Your task to perform on an android device: turn off picture-in-picture Image 0: 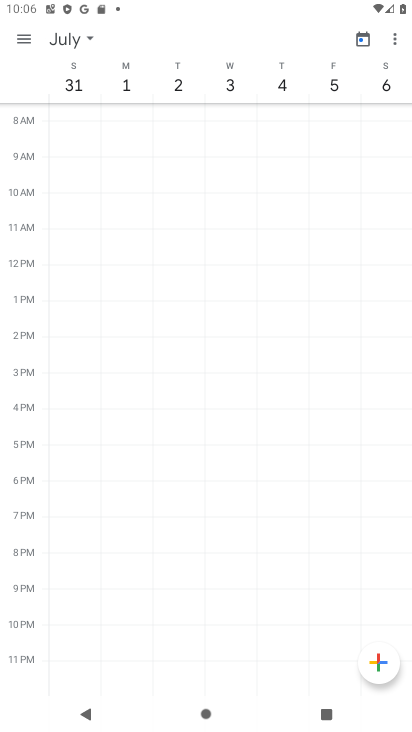
Step 0: press home button
Your task to perform on an android device: turn off picture-in-picture Image 1: 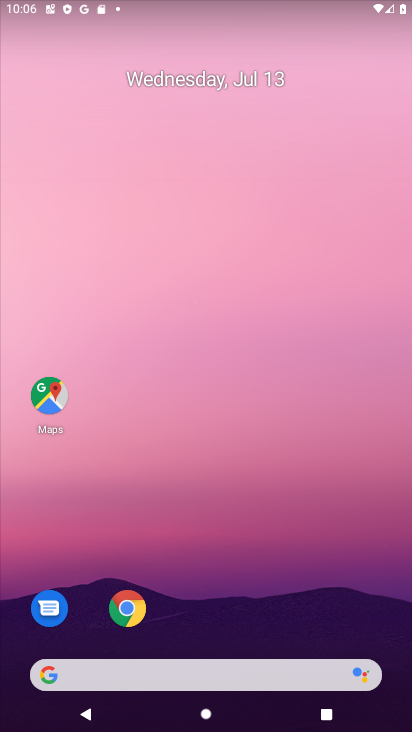
Step 1: click (129, 610)
Your task to perform on an android device: turn off picture-in-picture Image 2: 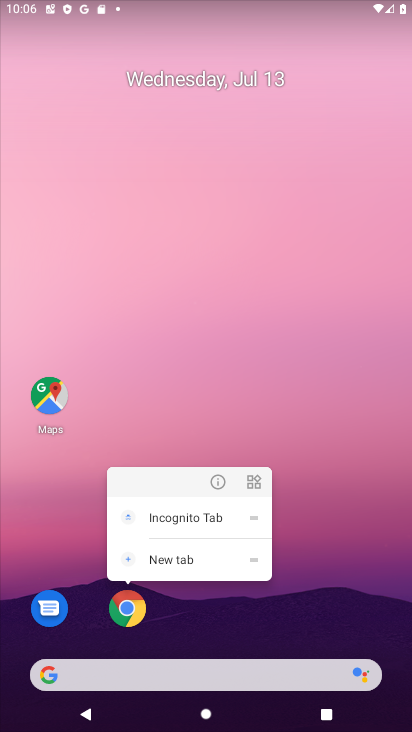
Step 2: click (219, 484)
Your task to perform on an android device: turn off picture-in-picture Image 3: 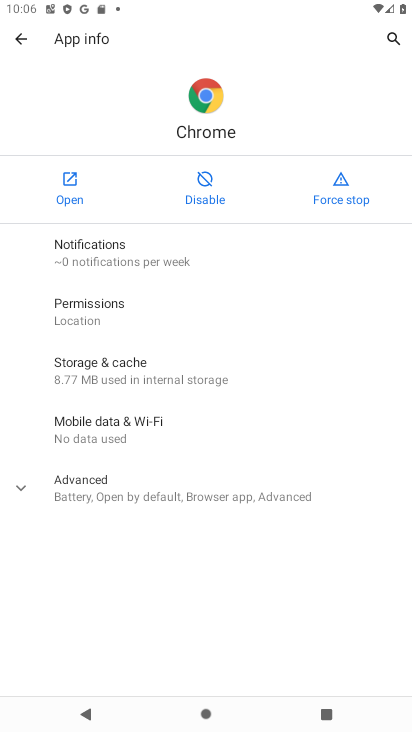
Step 3: click (136, 491)
Your task to perform on an android device: turn off picture-in-picture Image 4: 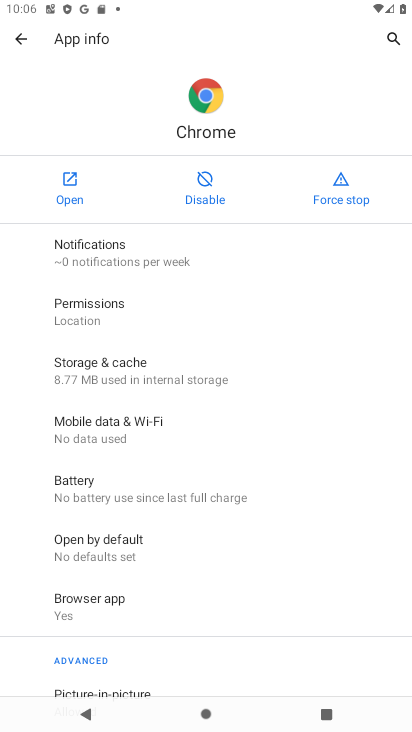
Step 4: drag from (149, 644) to (222, 460)
Your task to perform on an android device: turn off picture-in-picture Image 5: 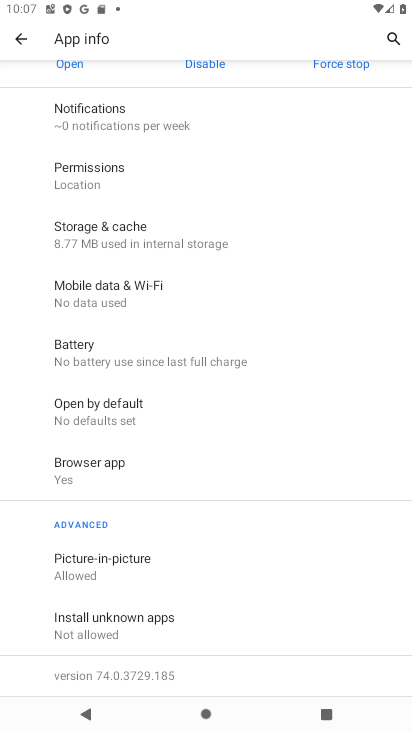
Step 5: click (105, 560)
Your task to perform on an android device: turn off picture-in-picture Image 6: 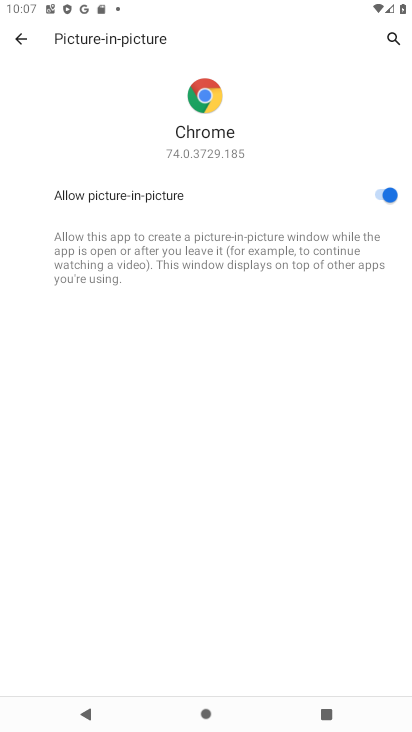
Step 6: click (380, 199)
Your task to perform on an android device: turn off picture-in-picture Image 7: 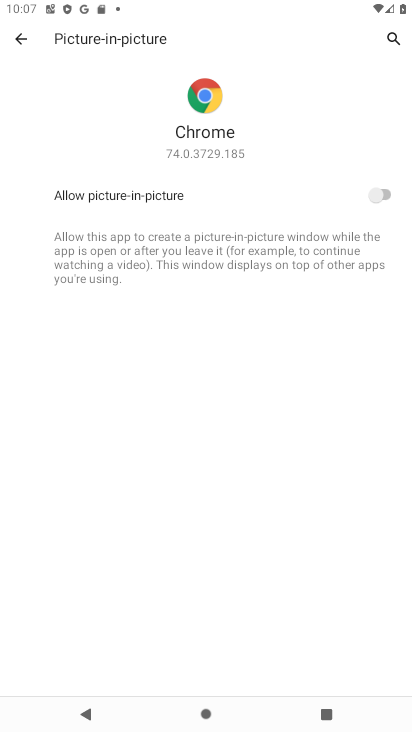
Step 7: task complete